Your task to perform on an android device: remove spam from my inbox in the gmail app Image 0: 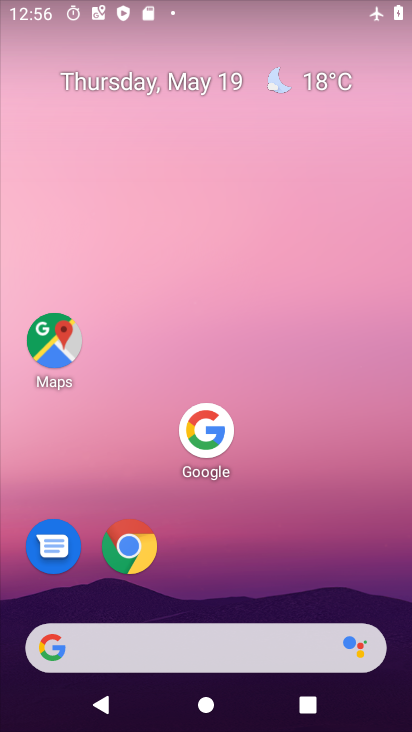
Step 0: drag from (272, 527) to (248, 67)
Your task to perform on an android device: remove spam from my inbox in the gmail app Image 1: 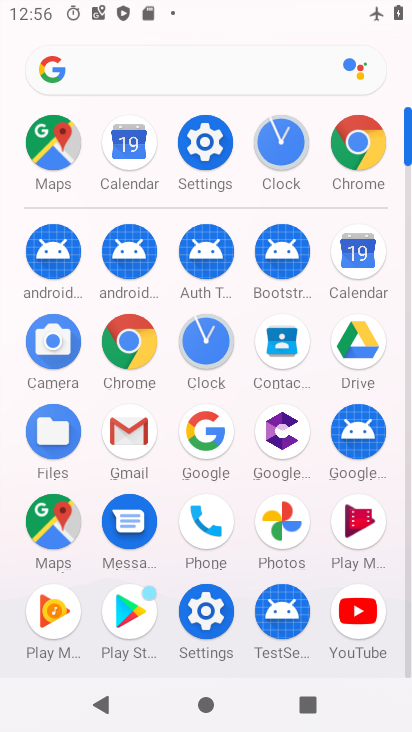
Step 1: click (130, 433)
Your task to perform on an android device: remove spam from my inbox in the gmail app Image 2: 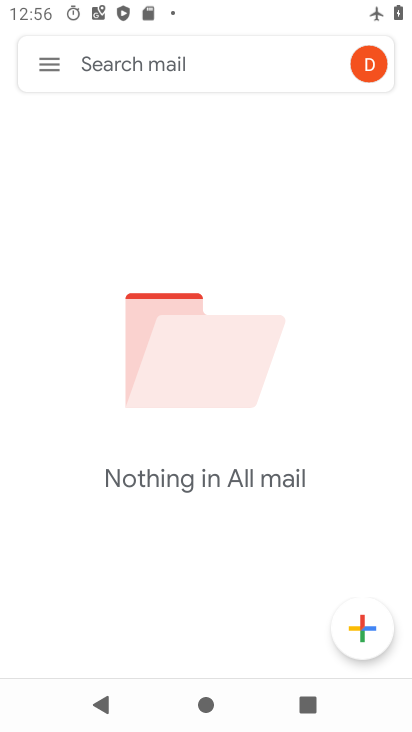
Step 2: click (51, 70)
Your task to perform on an android device: remove spam from my inbox in the gmail app Image 3: 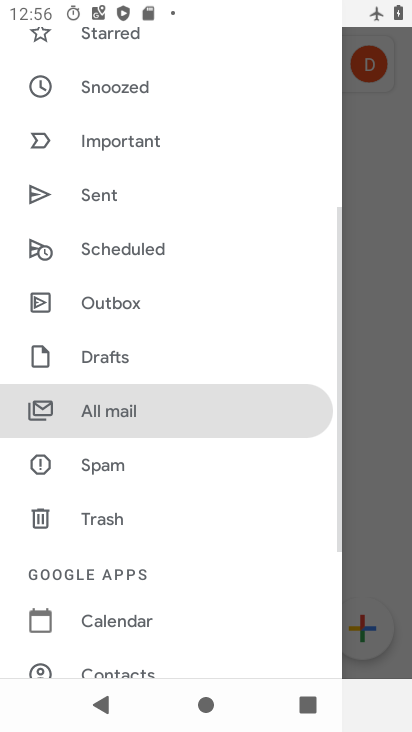
Step 3: click (129, 469)
Your task to perform on an android device: remove spam from my inbox in the gmail app Image 4: 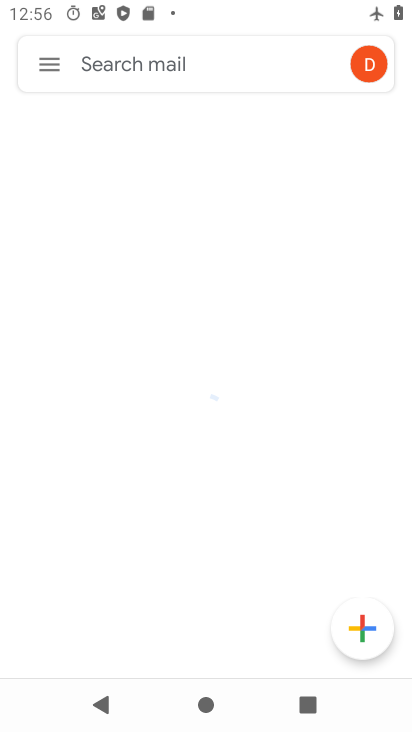
Step 4: click (47, 73)
Your task to perform on an android device: remove spam from my inbox in the gmail app Image 5: 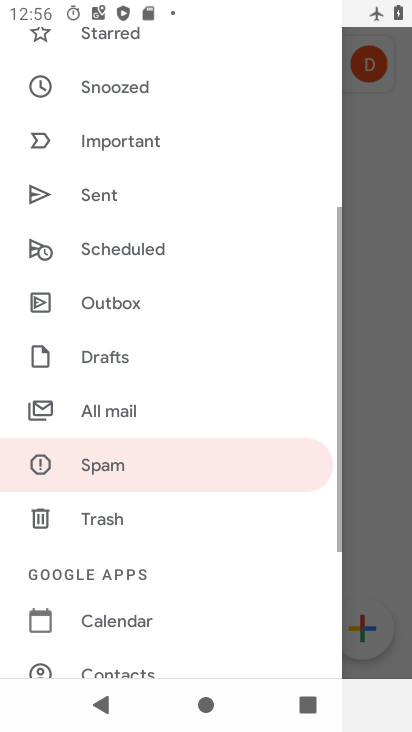
Step 5: task complete